Your task to perform on an android device: Go to notification settings Image 0: 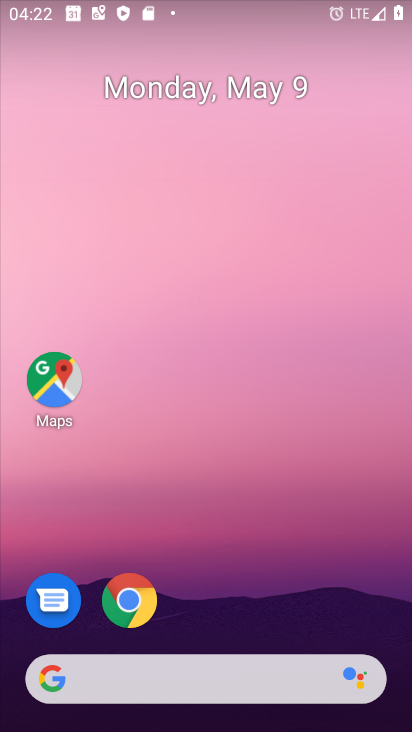
Step 0: drag from (308, 657) to (237, 32)
Your task to perform on an android device: Go to notification settings Image 1: 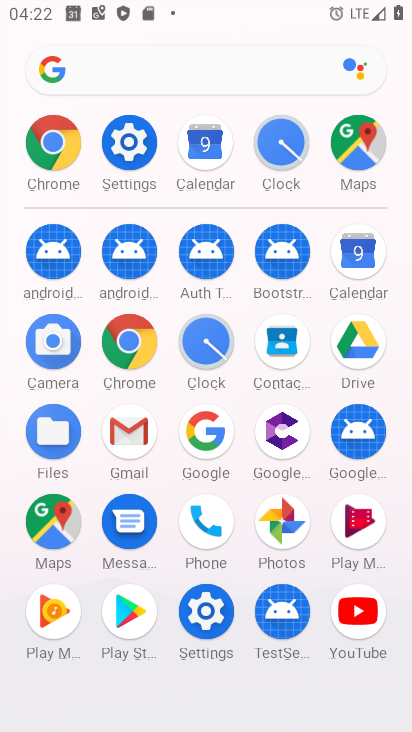
Step 1: click (133, 149)
Your task to perform on an android device: Go to notification settings Image 2: 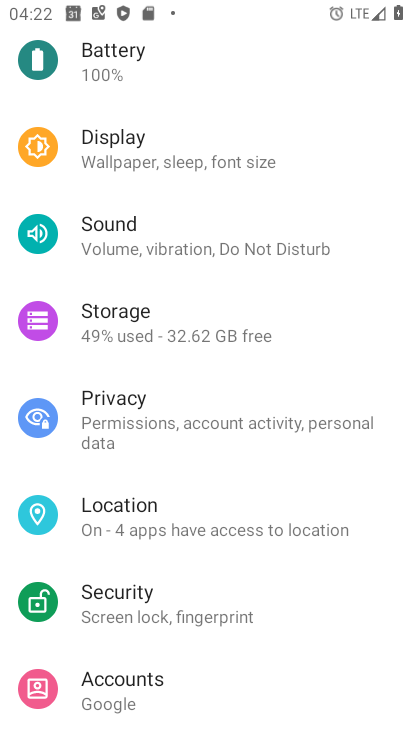
Step 2: drag from (210, 94) to (251, 585)
Your task to perform on an android device: Go to notification settings Image 3: 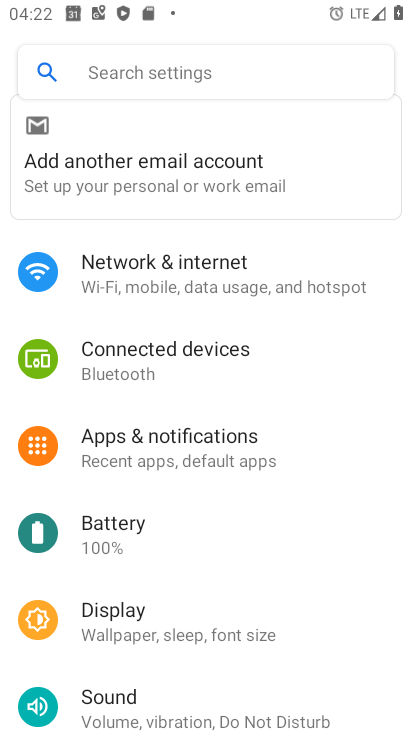
Step 3: click (146, 434)
Your task to perform on an android device: Go to notification settings Image 4: 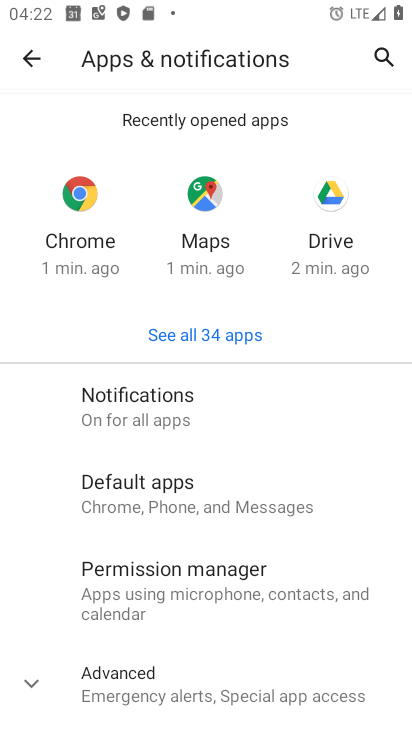
Step 4: click (205, 418)
Your task to perform on an android device: Go to notification settings Image 5: 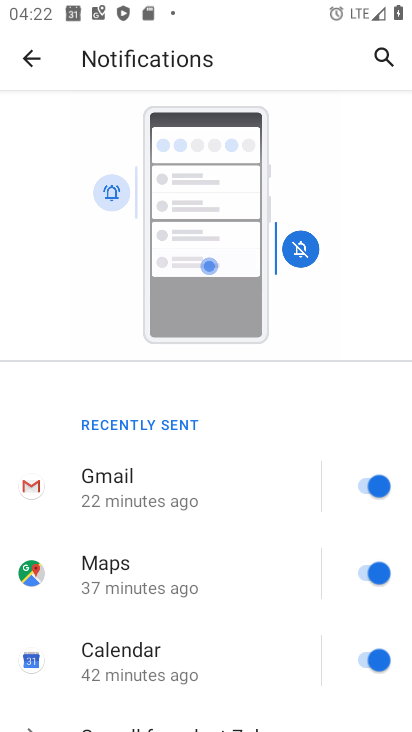
Step 5: task complete